Your task to perform on an android device: What's on my calendar tomorrow? Image 0: 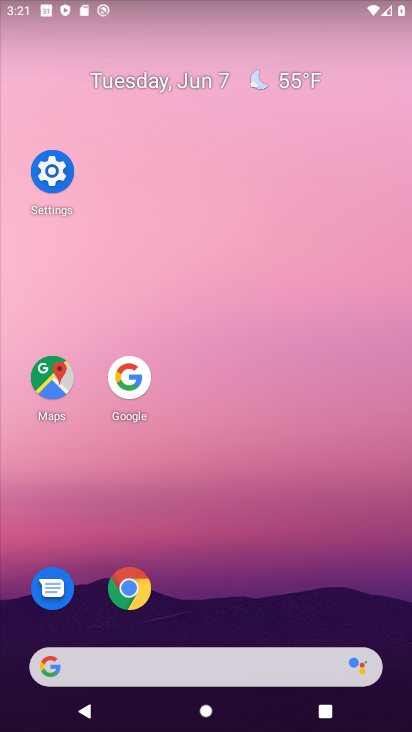
Step 0: drag from (271, 558) to (281, 173)
Your task to perform on an android device: What's on my calendar tomorrow? Image 1: 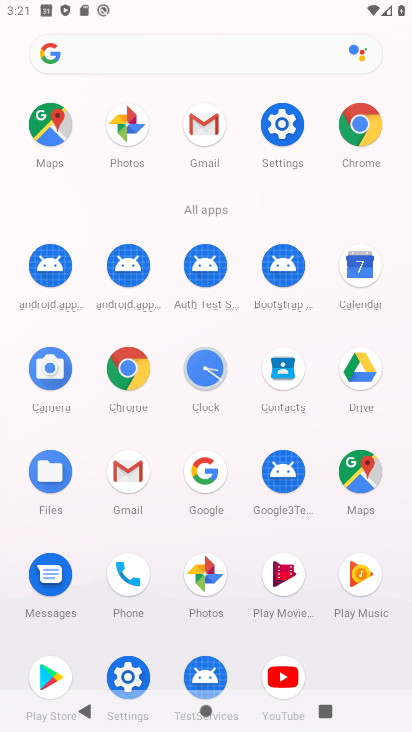
Step 1: drag from (363, 281) to (176, 201)
Your task to perform on an android device: What's on my calendar tomorrow? Image 2: 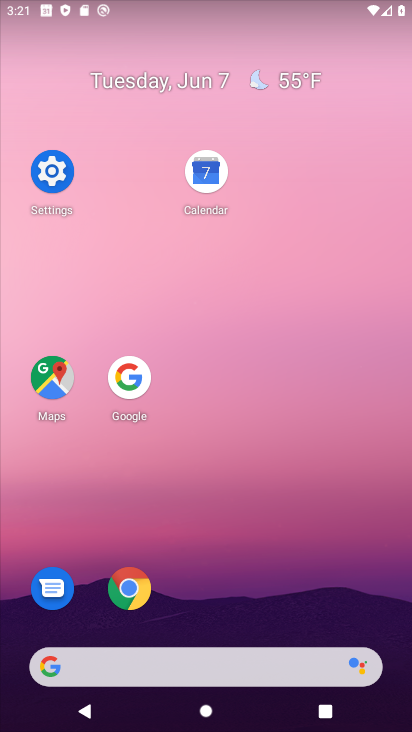
Step 2: click (219, 164)
Your task to perform on an android device: What's on my calendar tomorrow? Image 3: 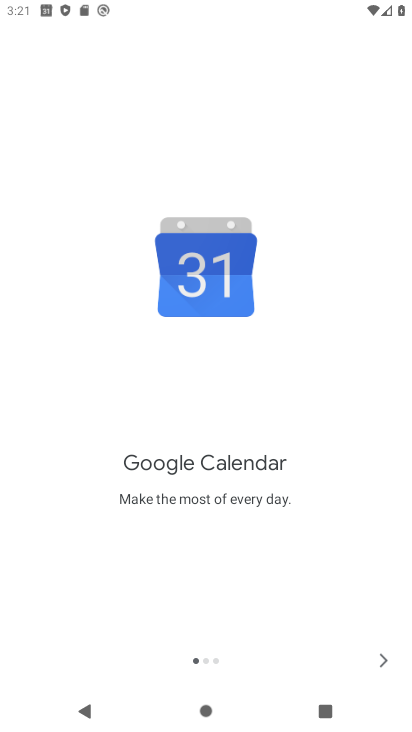
Step 3: click (376, 657)
Your task to perform on an android device: What's on my calendar tomorrow? Image 4: 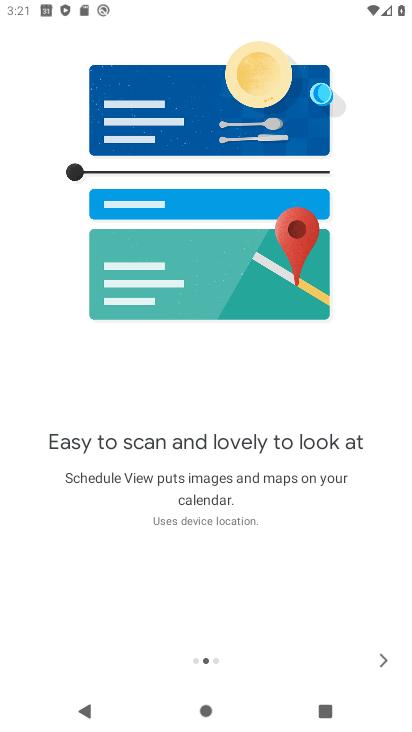
Step 4: click (387, 665)
Your task to perform on an android device: What's on my calendar tomorrow? Image 5: 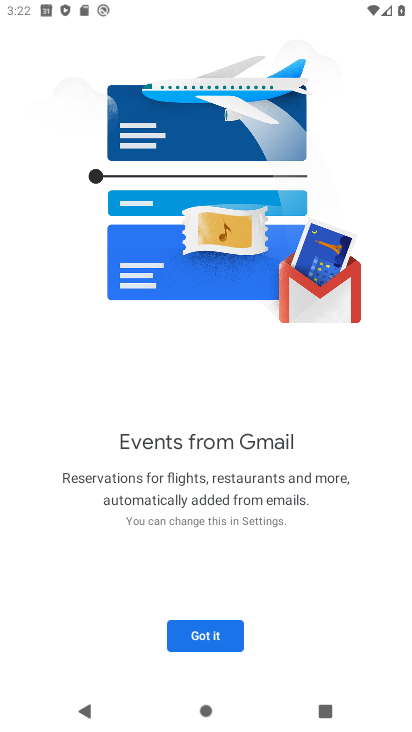
Step 5: click (208, 638)
Your task to perform on an android device: What's on my calendar tomorrow? Image 6: 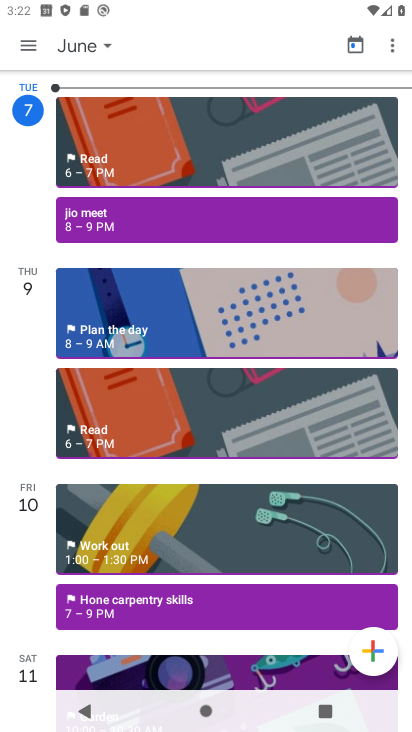
Step 6: click (93, 47)
Your task to perform on an android device: What's on my calendar tomorrow? Image 7: 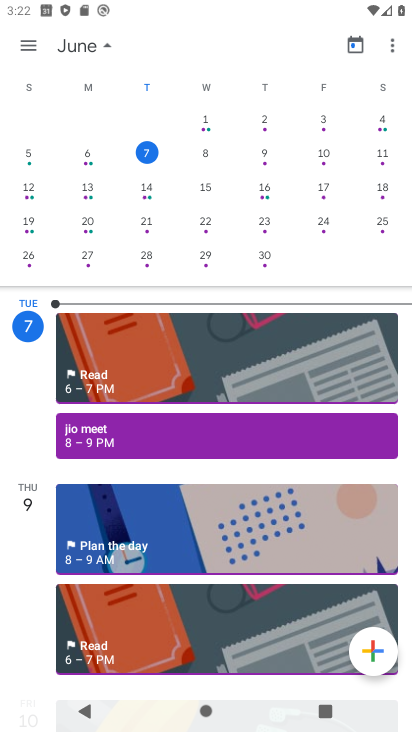
Step 7: click (200, 154)
Your task to perform on an android device: What's on my calendar tomorrow? Image 8: 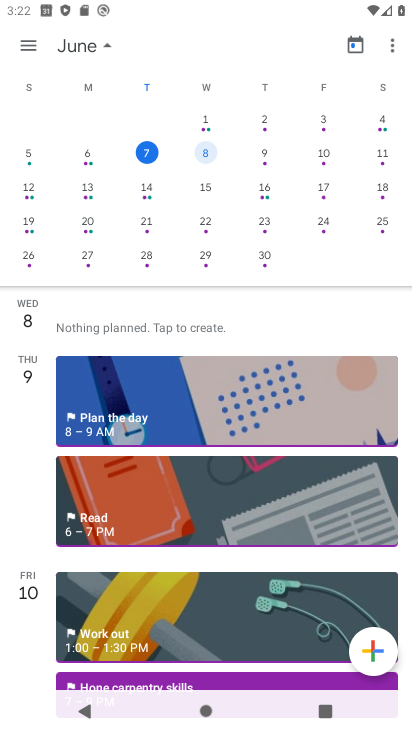
Step 8: click (205, 157)
Your task to perform on an android device: What's on my calendar tomorrow? Image 9: 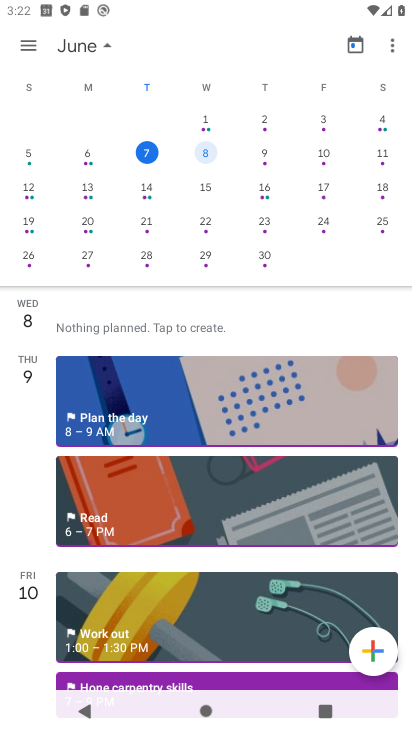
Step 9: click (206, 154)
Your task to perform on an android device: What's on my calendar tomorrow? Image 10: 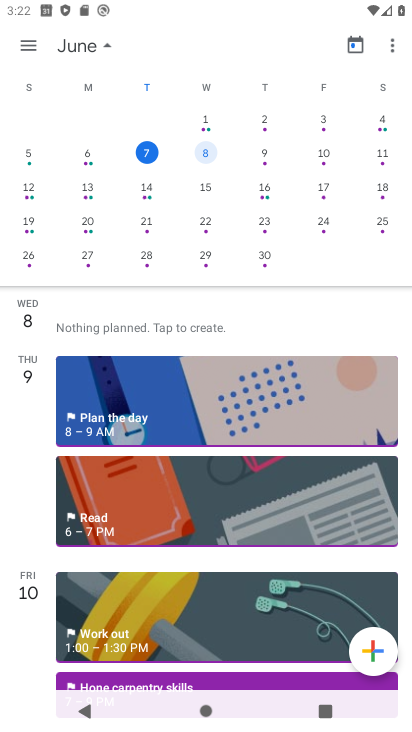
Step 10: click (199, 155)
Your task to perform on an android device: What's on my calendar tomorrow? Image 11: 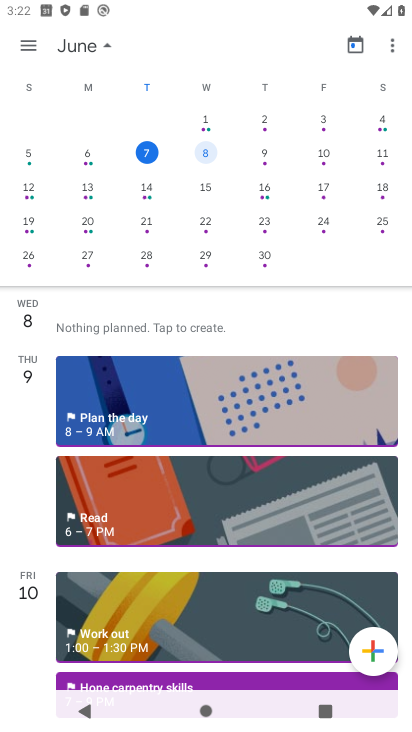
Step 11: click (80, 321)
Your task to perform on an android device: What's on my calendar tomorrow? Image 12: 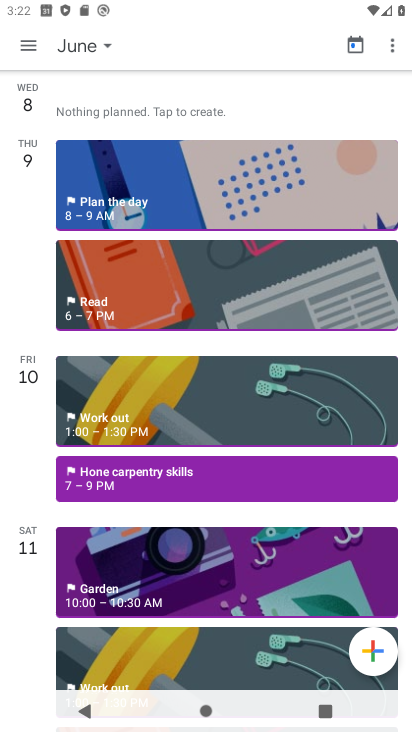
Step 12: task complete